Your task to perform on an android device: turn on location history Image 0: 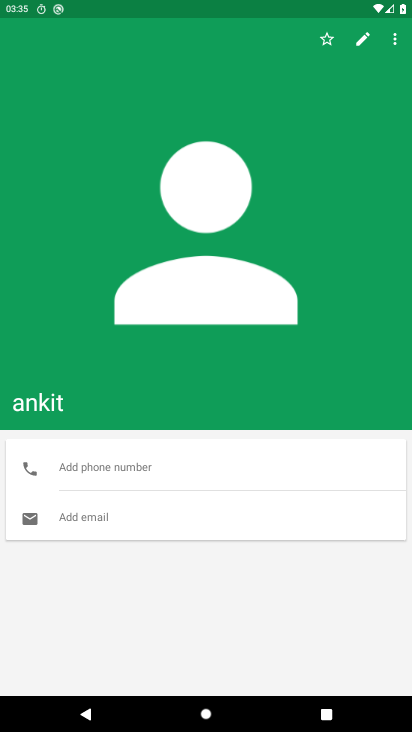
Step 0: press home button
Your task to perform on an android device: turn on location history Image 1: 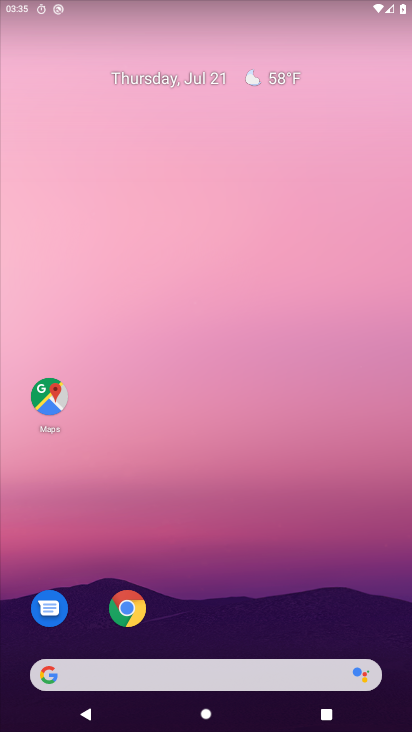
Step 1: drag from (226, 619) to (254, 186)
Your task to perform on an android device: turn on location history Image 2: 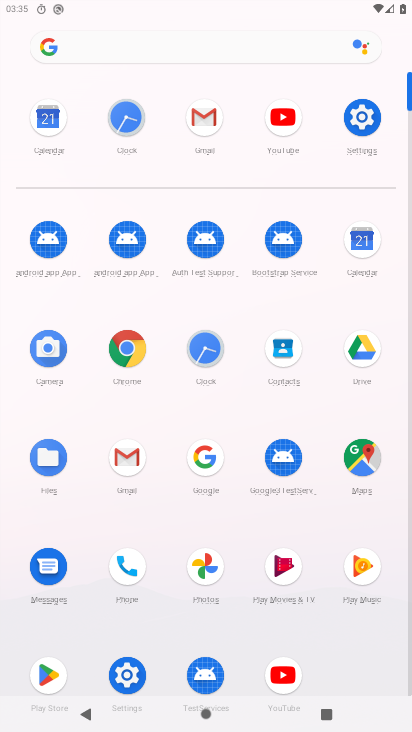
Step 2: click (356, 110)
Your task to perform on an android device: turn on location history Image 3: 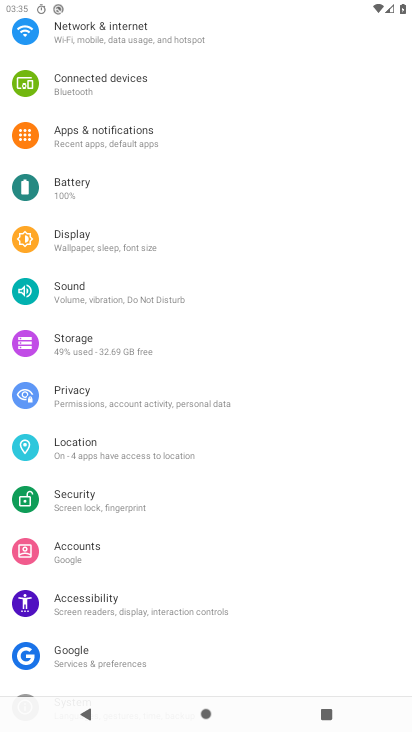
Step 3: click (112, 440)
Your task to perform on an android device: turn on location history Image 4: 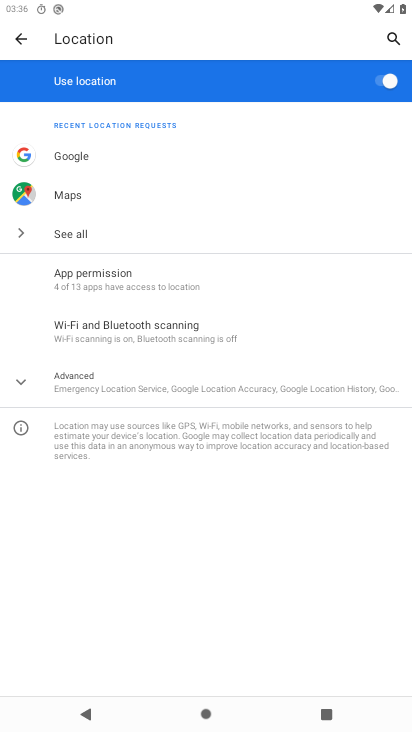
Step 4: click (59, 371)
Your task to perform on an android device: turn on location history Image 5: 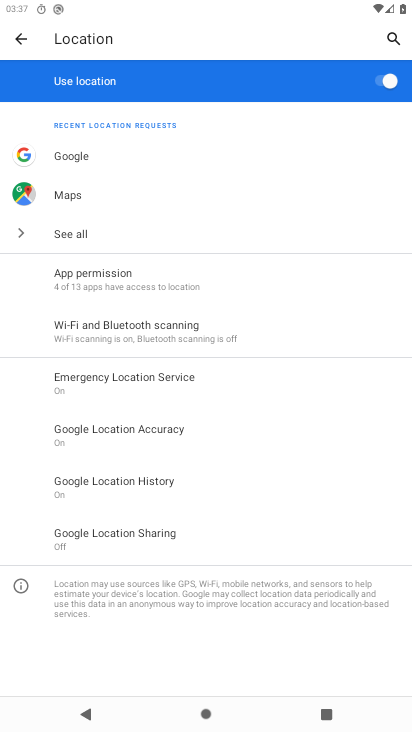
Step 5: click (119, 486)
Your task to perform on an android device: turn on location history Image 6: 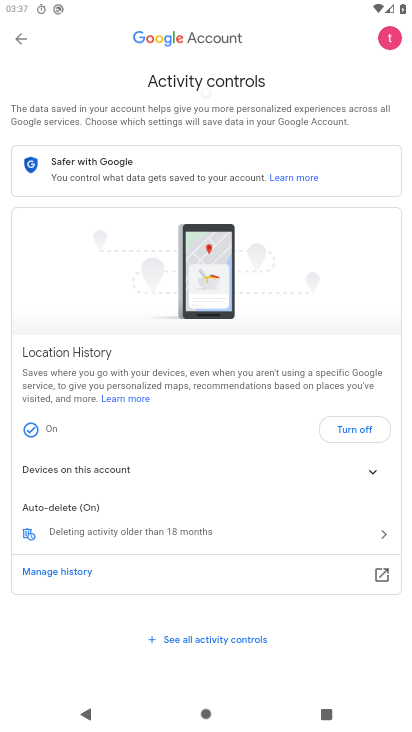
Step 6: task complete